Your task to perform on an android device: install app "Nova Launcher" Image 0: 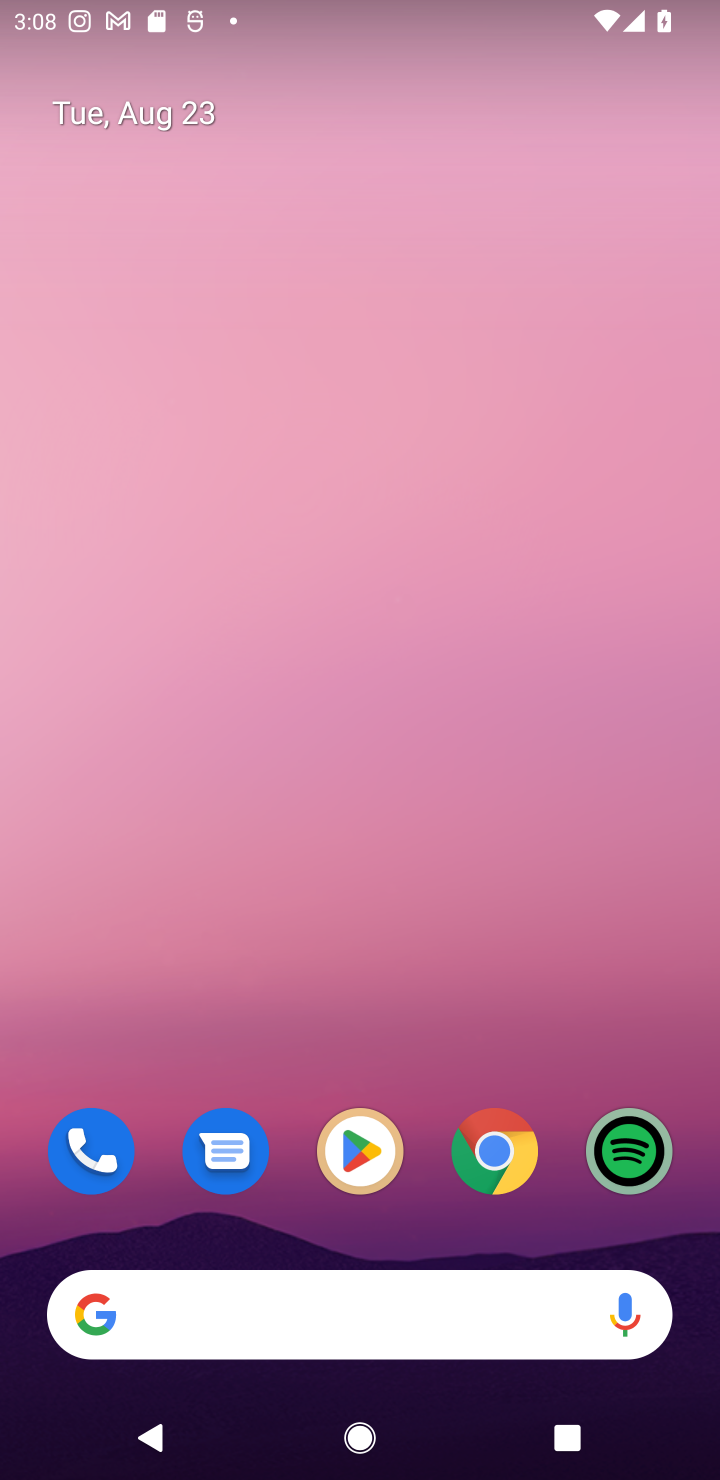
Step 0: press home button
Your task to perform on an android device: install app "Nova Launcher" Image 1: 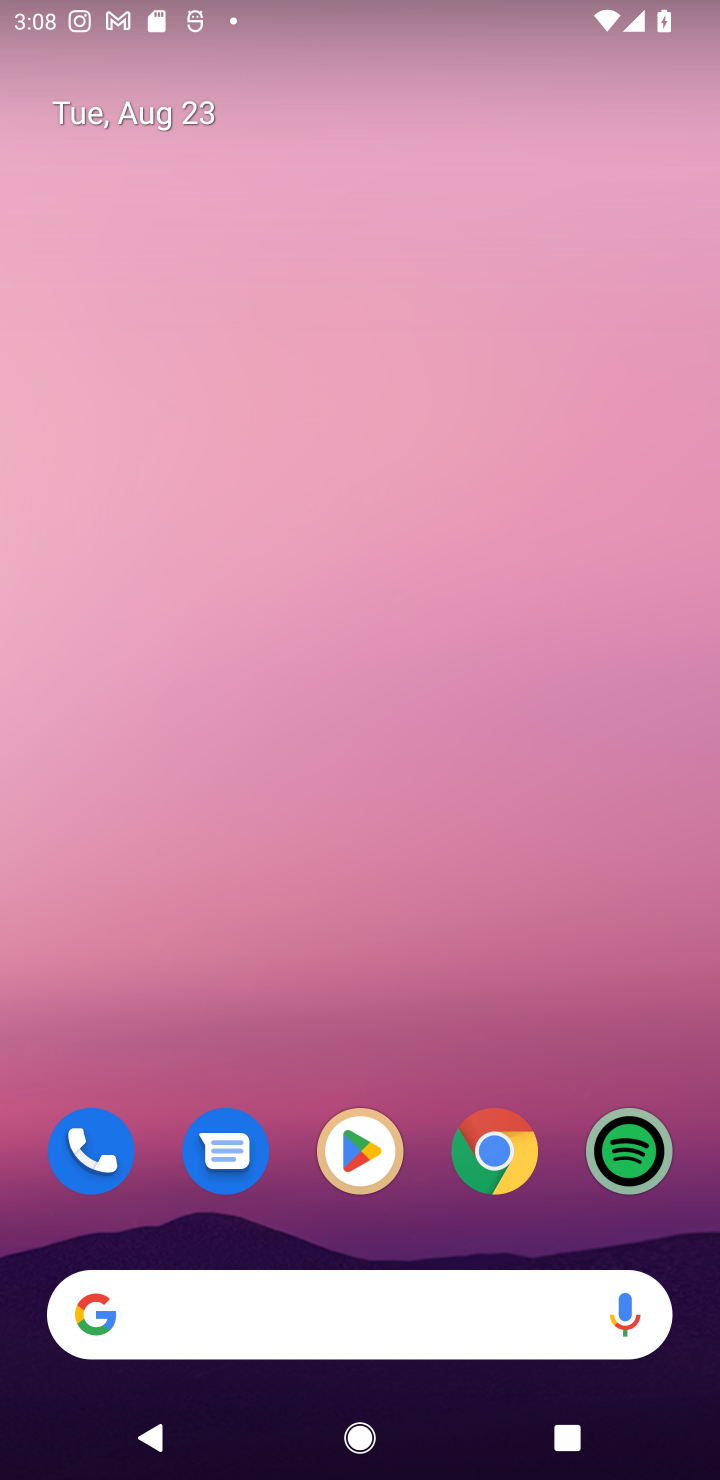
Step 1: click (354, 1163)
Your task to perform on an android device: install app "Nova Launcher" Image 2: 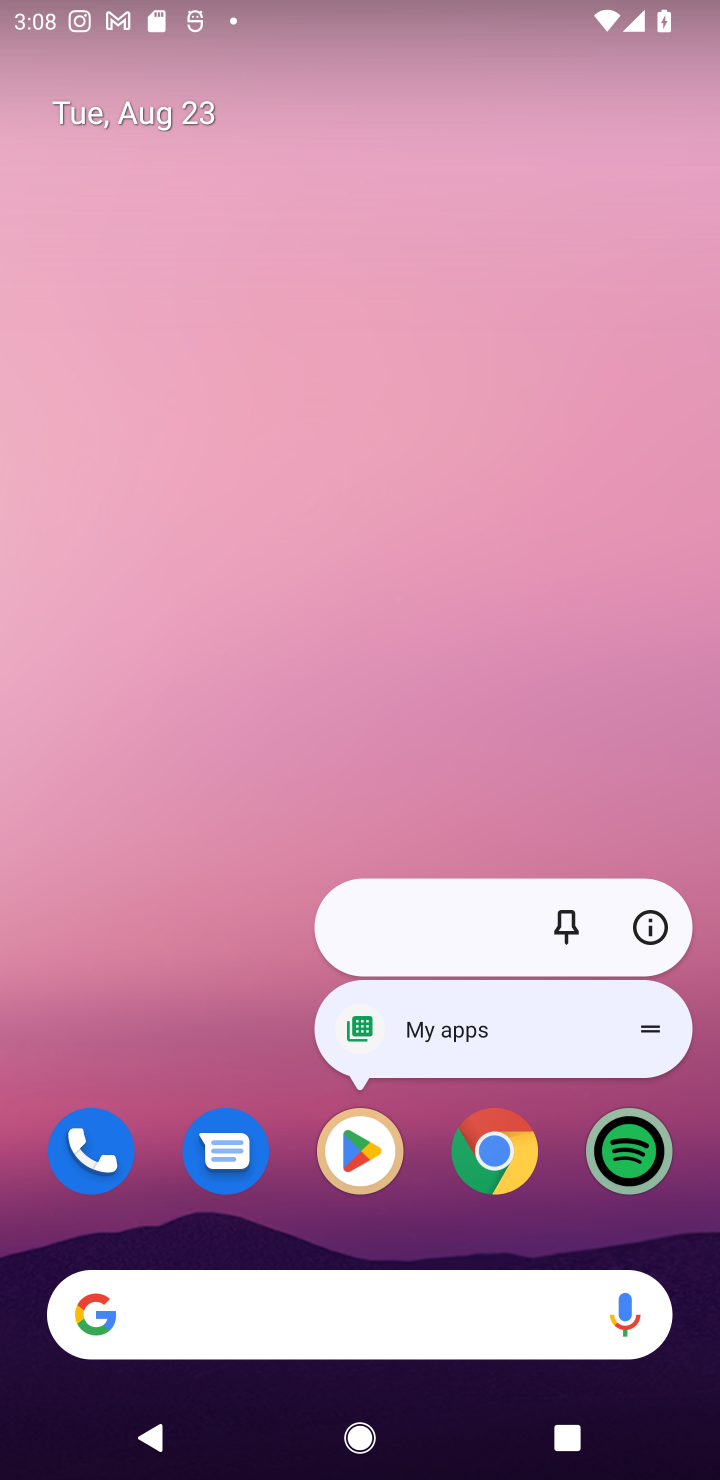
Step 2: click (354, 1157)
Your task to perform on an android device: install app "Nova Launcher" Image 3: 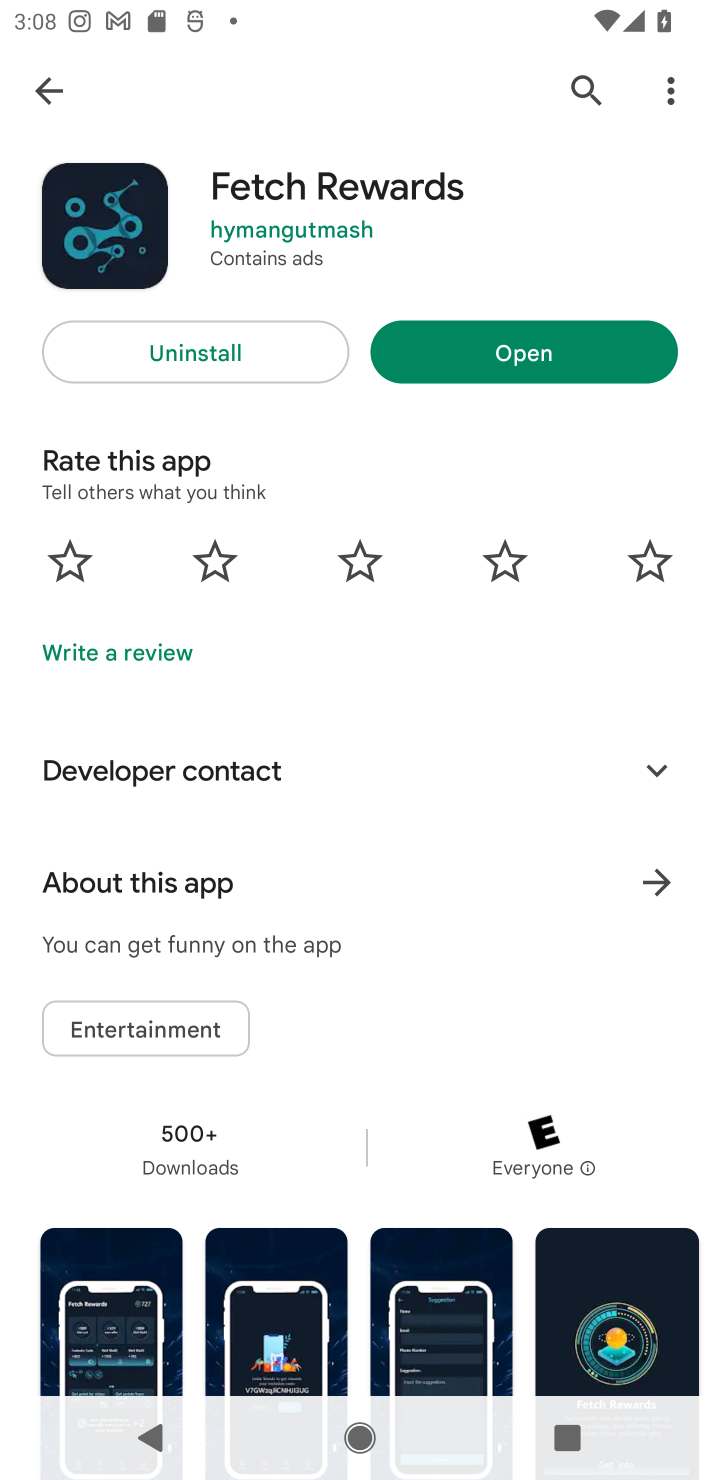
Step 3: click (588, 94)
Your task to perform on an android device: install app "Nova Launcher" Image 4: 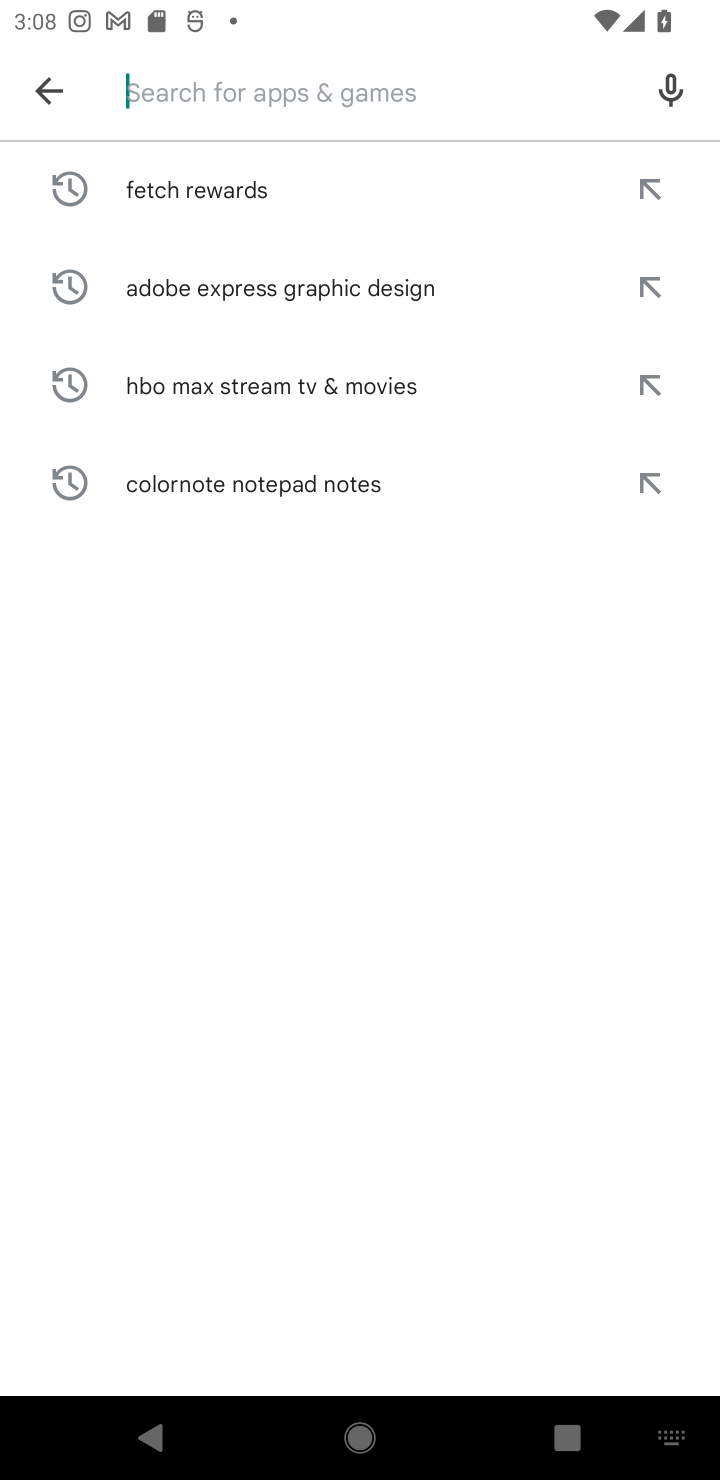
Step 4: type "Nova Launcher"
Your task to perform on an android device: install app "Nova Launcher" Image 5: 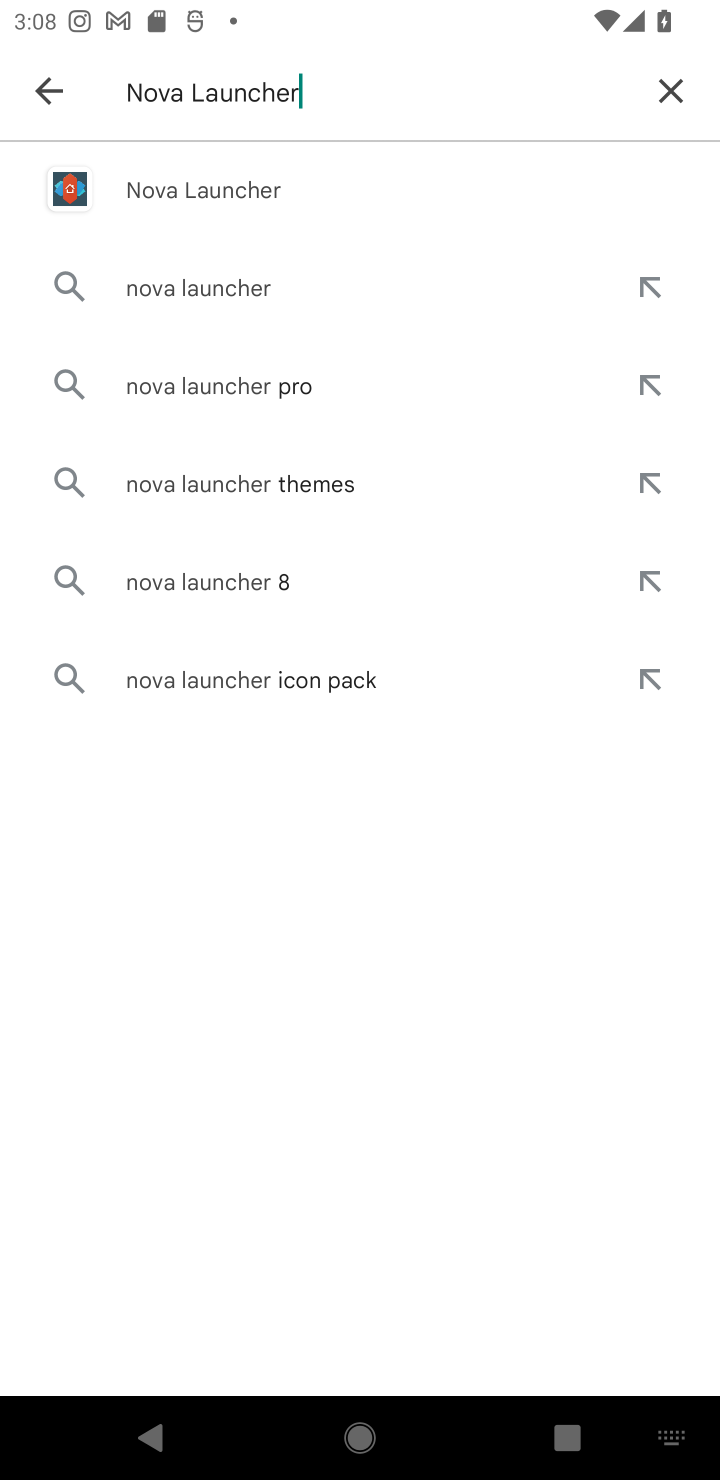
Step 5: click (261, 187)
Your task to perform on an android device: install app "Nova Launcher" Image 6: 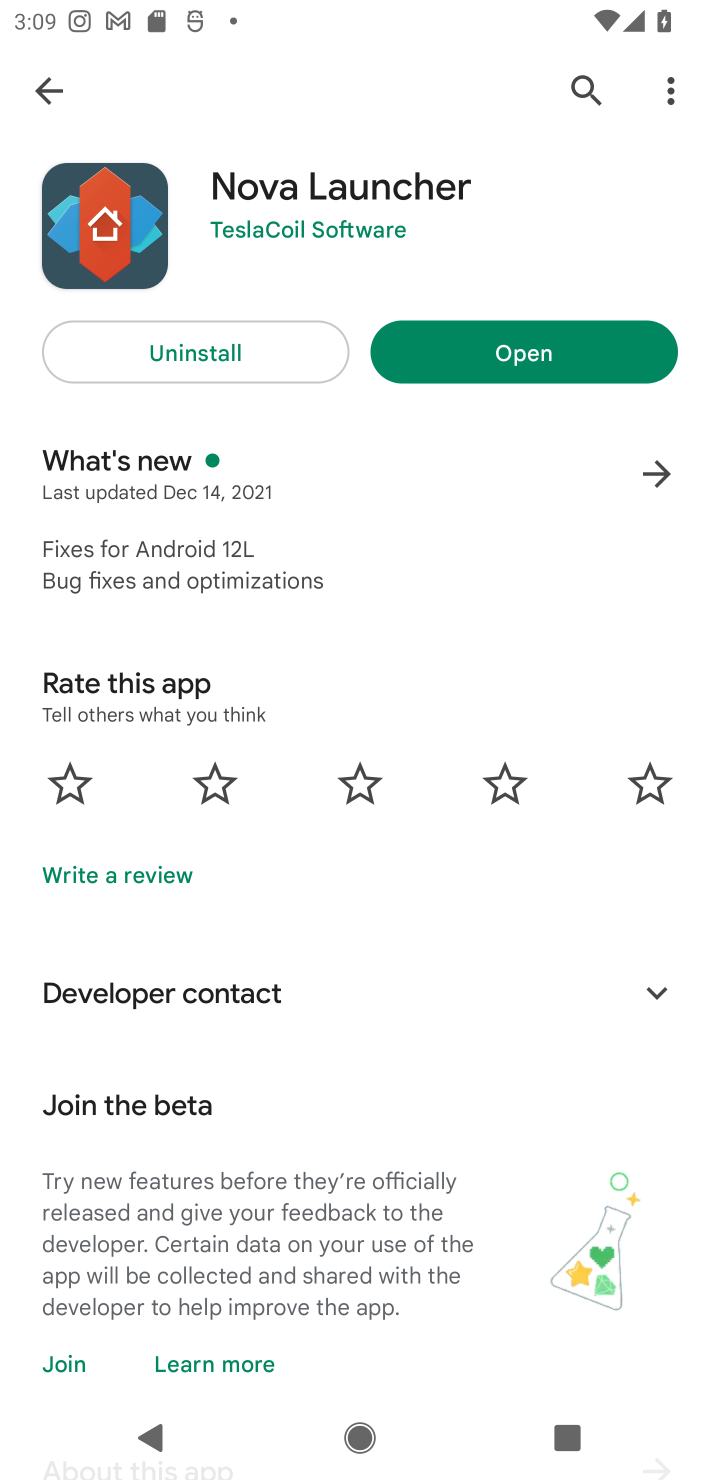
Step 6: task complete